Your task to perform on an android device: Open Google Chrome and open the bookmarks view Image 0: 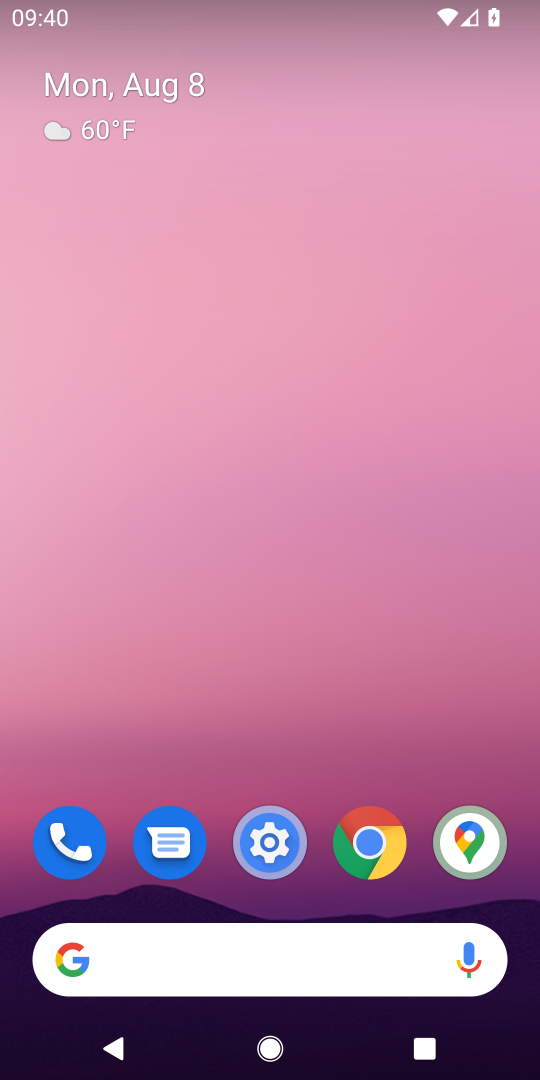
Step 0: click (375, 824)
Your task to perform on an android device: Open Google Chrome and open the bookmarks view Image 1: 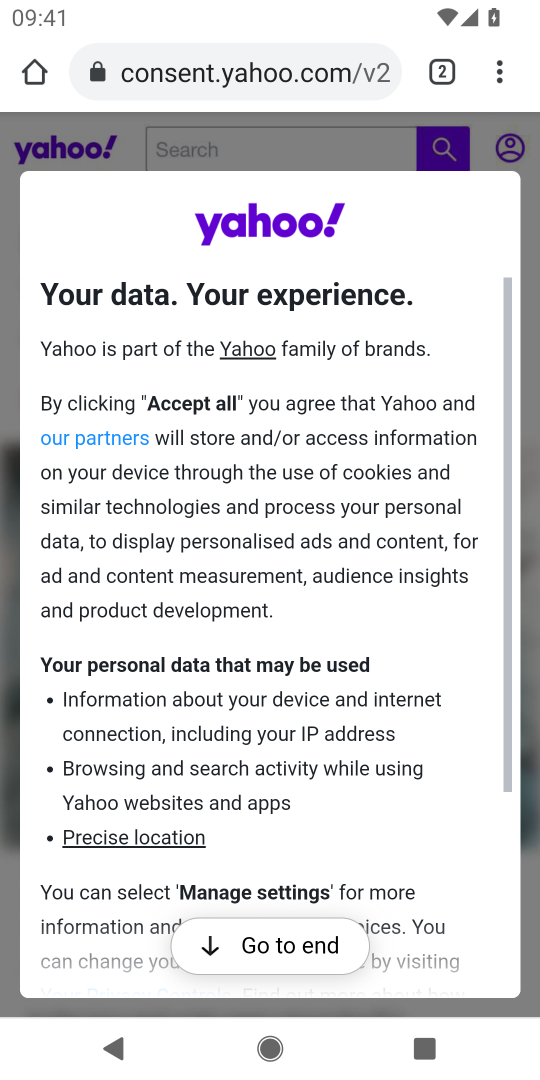
Step 1: click (493, 74)
Your task to perform on an android device: Open Google Chrome and open the bookmarks view Image 2: 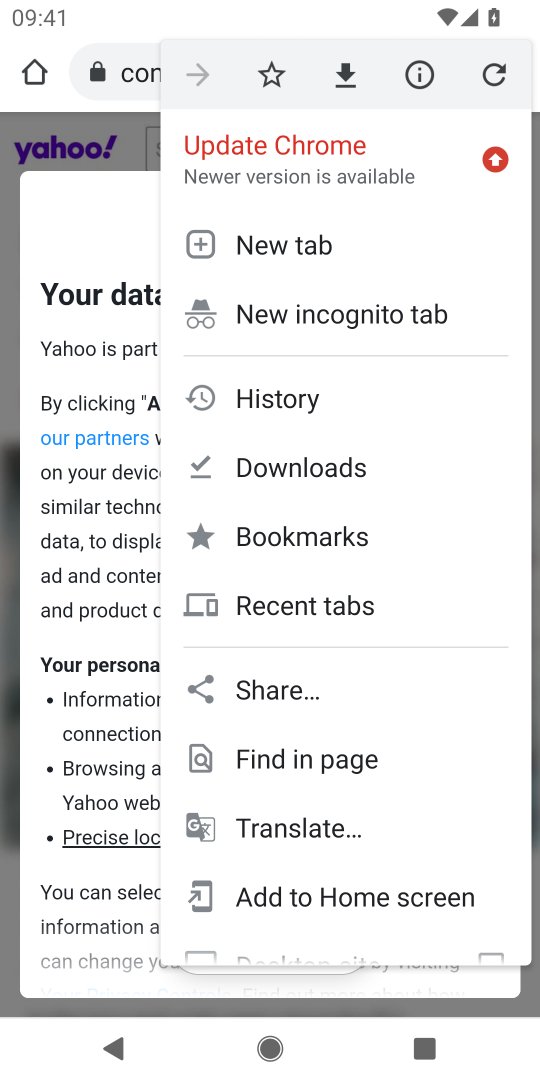
Step 2: click (257, 535)
Your task to perform on an android device: Open Google Chrome and open the bookmarks view Image 3: 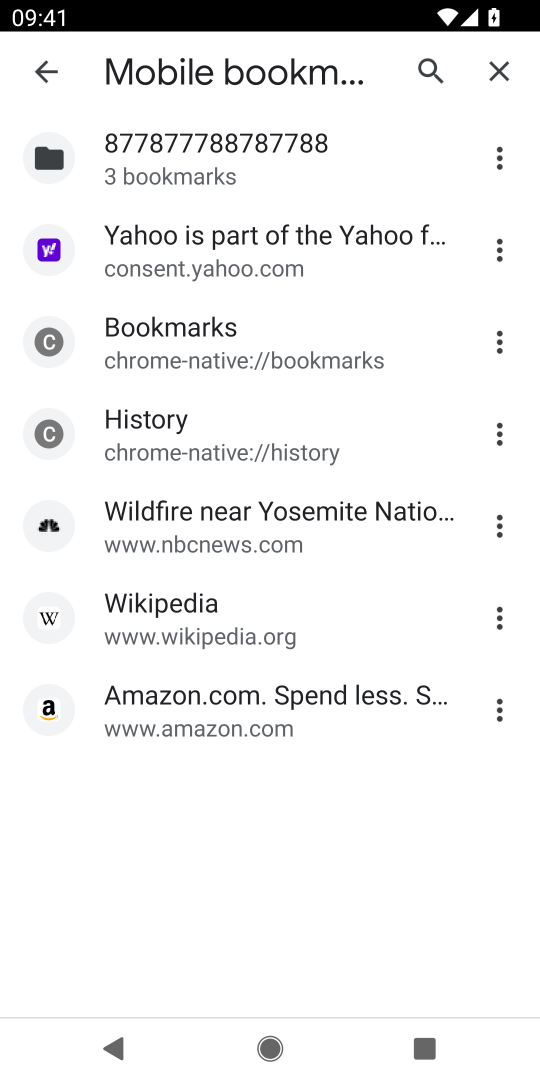
Step 3: task complete